Your task to perform on an android device: Open privacy settings Image 0: 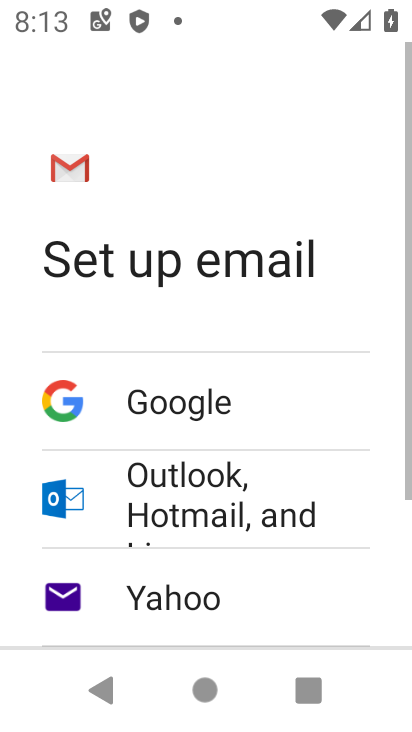
Step 0: press home button
Your task to perform on an android device: Open privacy settings Image 1: 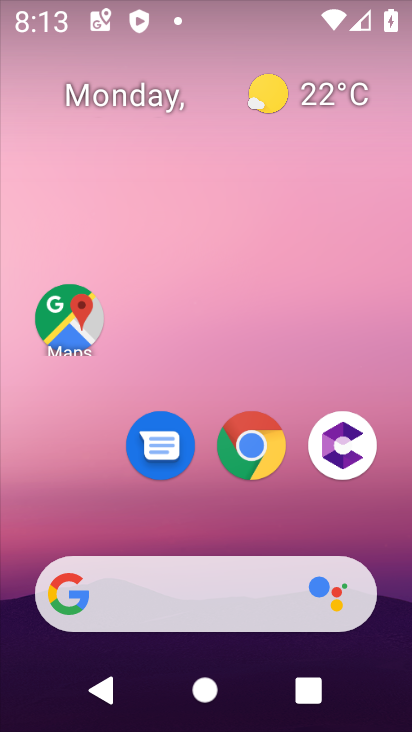
Step 1: drag from (218, 523) to (214, 10)
Your task to perform on an android device: Open privacy settings Image 2: 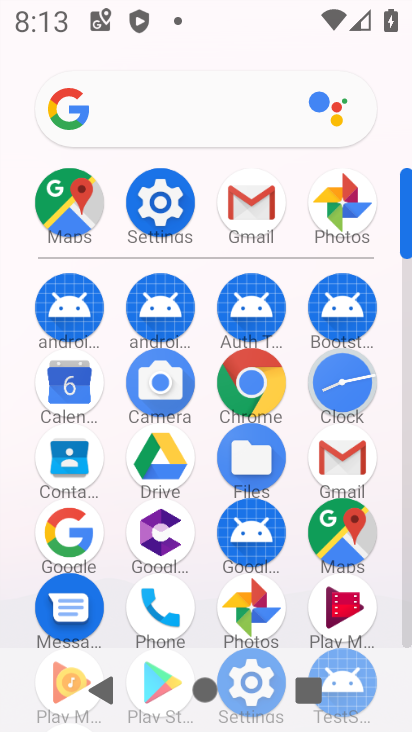
Step 2: click (148, 209)
Your task to perform on an android device: Open privacy settings Image 3: 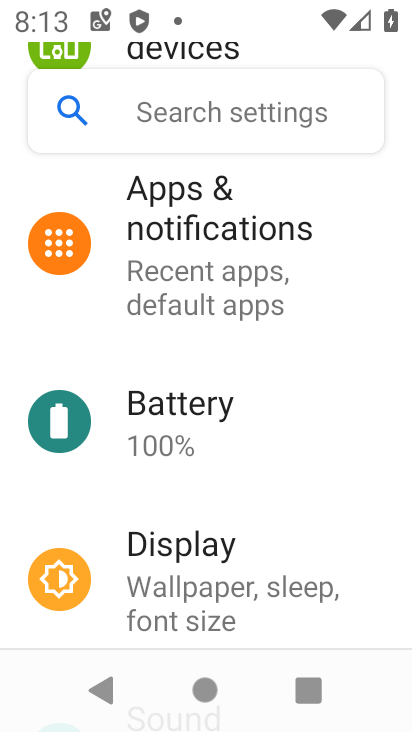
Step 3: drag from (326, 482) to (274, 93)
Your task to perform on an android device: Open privacy settings Image 4: 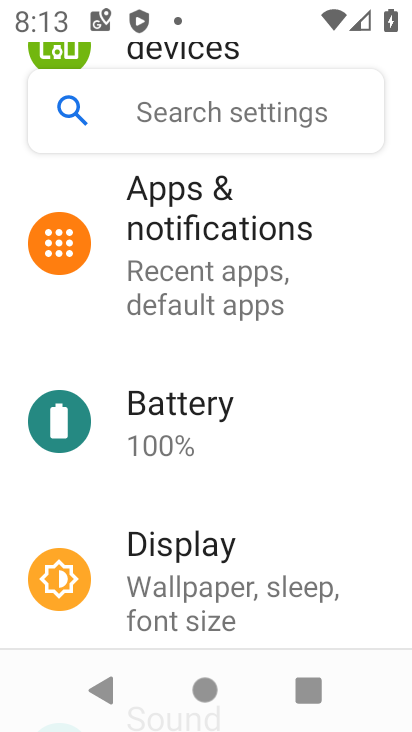
Step 4: drag from (285, 287) to (244, 618)
Your task to perform on an android device: Open privacy settings Image 5: 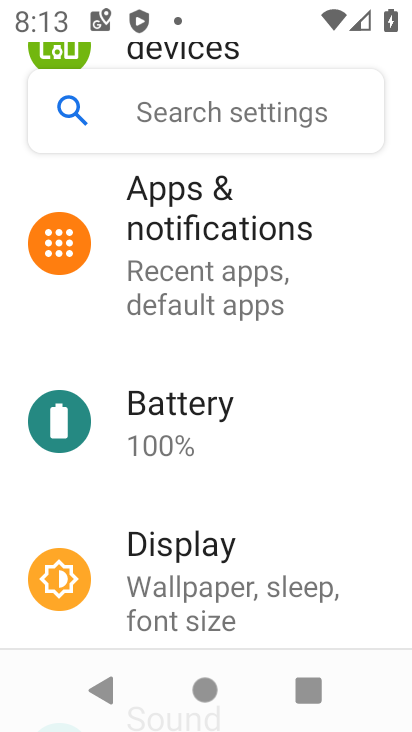
Step 5: drag from (299, 536) to (313, 122)
Your task to perform on an android device: Open privacy settings Image 6: 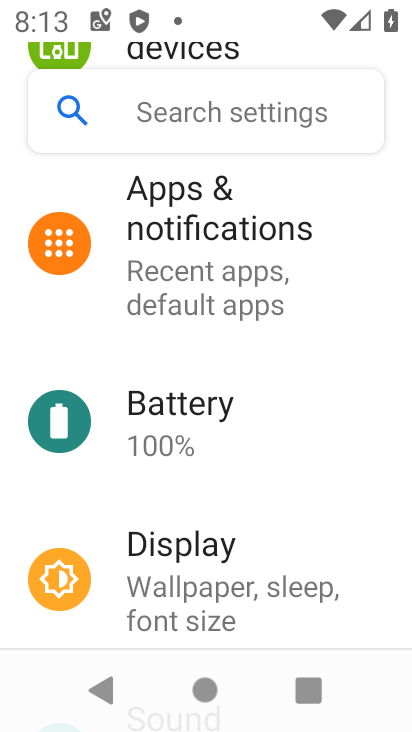
Step 6: drag from (352, 500) to (324, 93)
Your task to perform on an android device: Open privacy settings Image 7: 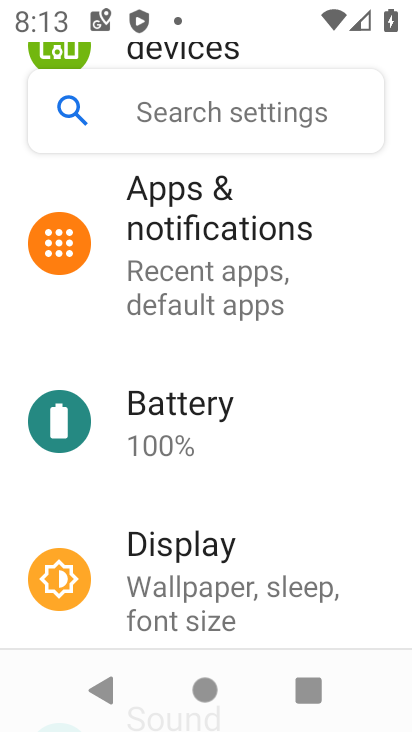
Step 7: drag from (269, 513) to (259, 77)
Your task to perform on an android device: Open privacy settings Image 8: 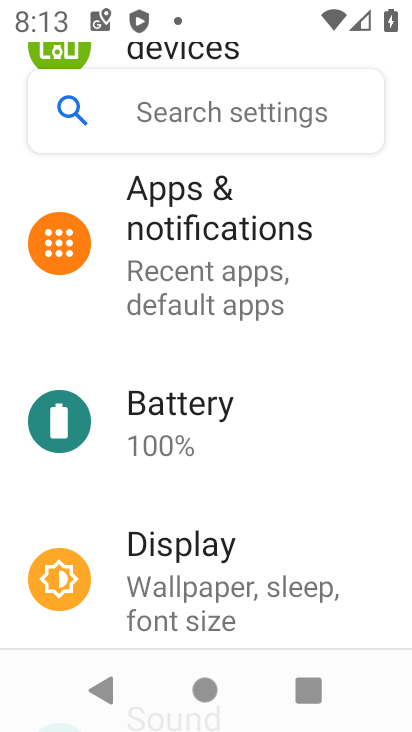
Step 8: drag from (35, 514) to (78, 130)
Your task to perform on an android device: Open privacy settings Image 9: 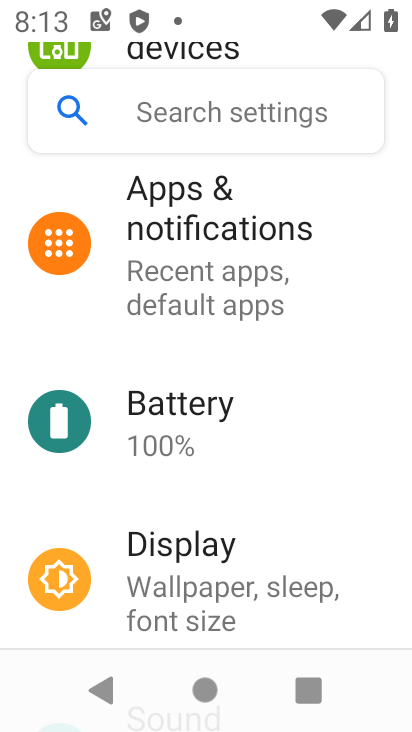
Step 9: drag from (286, 483) to (219, 159)
Your task to perform on an android device: Open privacy settings Image 10: 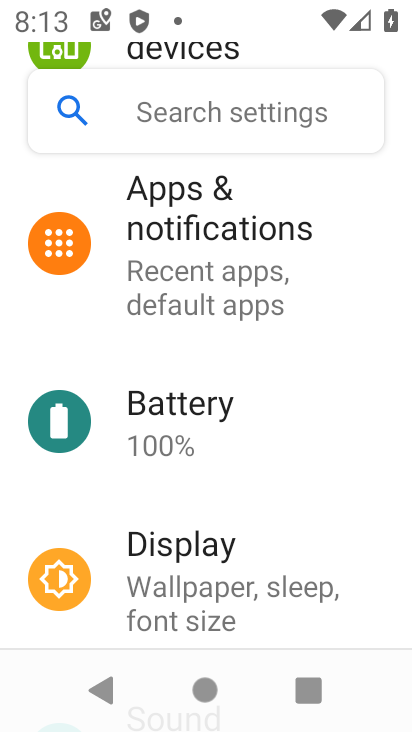
Step 10: drag from (288, 540) to (292, 0)
Your task to perform on an android device: Open privacy settings Image 11: 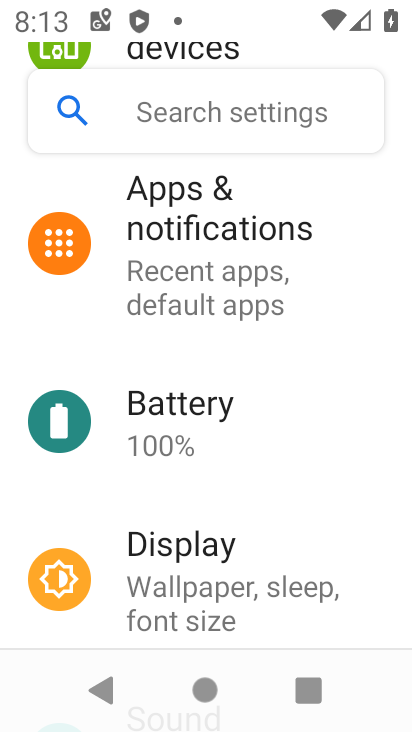
Step 11: drag from (316, 528) to (320, 235)
Your task to perform on an android device: Open privacy settings Image 12: 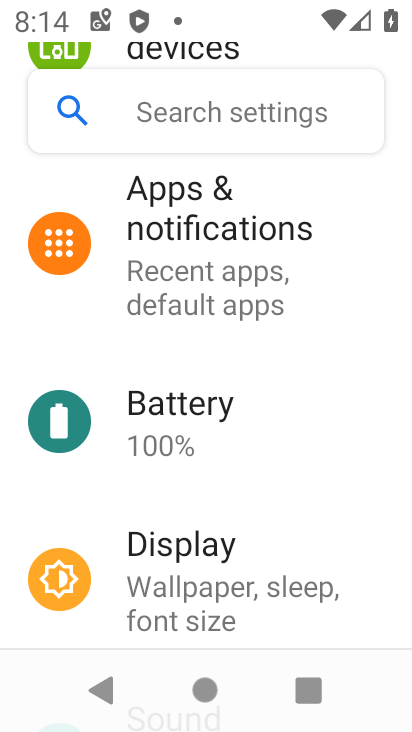
Step 12: drag from (265, 530) to (312, 161)
Your task to perform on an android device: Open privacy settings Image 13: 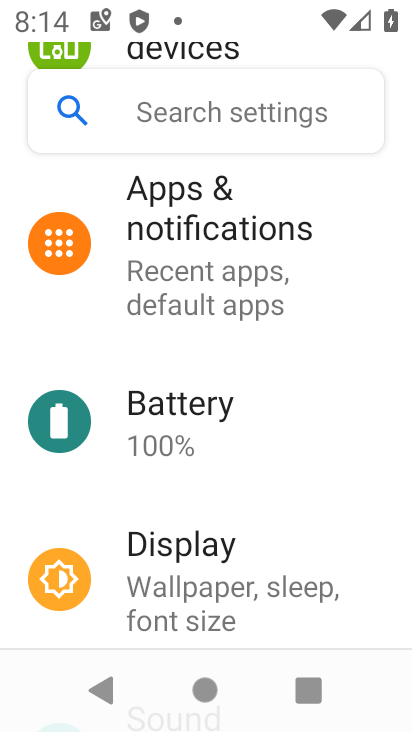
Step 13: drag from (302, 515) to (231, 0)
Your task to perform on an android device: Open privacy settings Image 14: 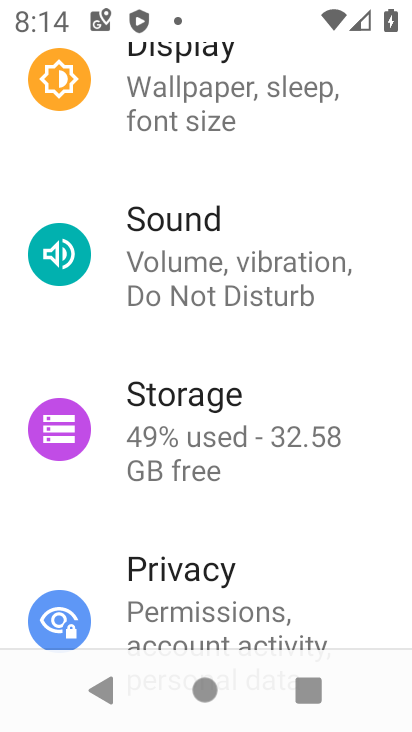
Step 14: drag from (327, 454) to (313, 4)
Your task to perform on an android device: Open privacy settings Image 15: 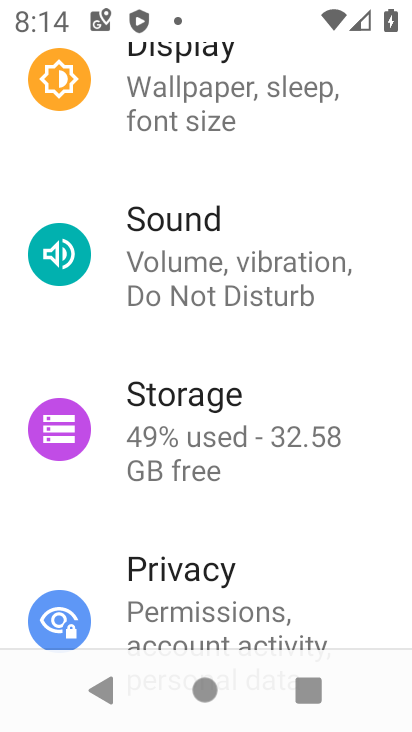
Step 15: click (177, 583)
Your task to perform on an android device: Open privacy settings Image 16: 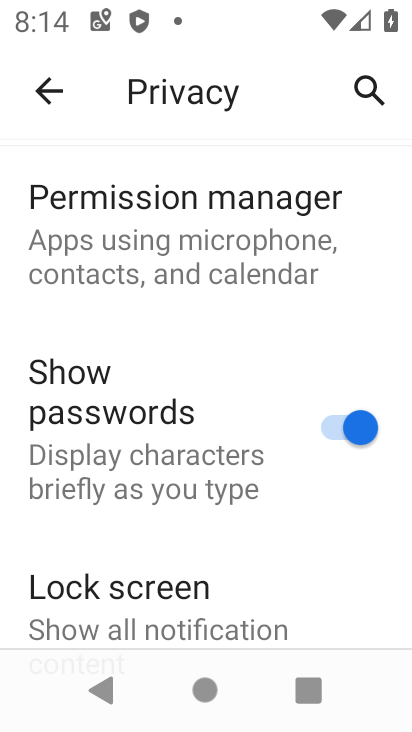
Step 16: task complete